Your task to perform on an android device: toggle improve location accuracy Image 0: 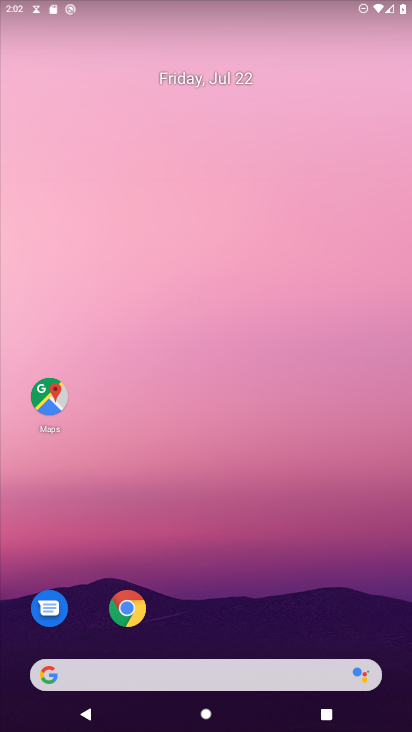
Step 0: drag from (246, 624) to (289, 56)
Your task to perform on an android device: toggle improve location accuracy Image 1: 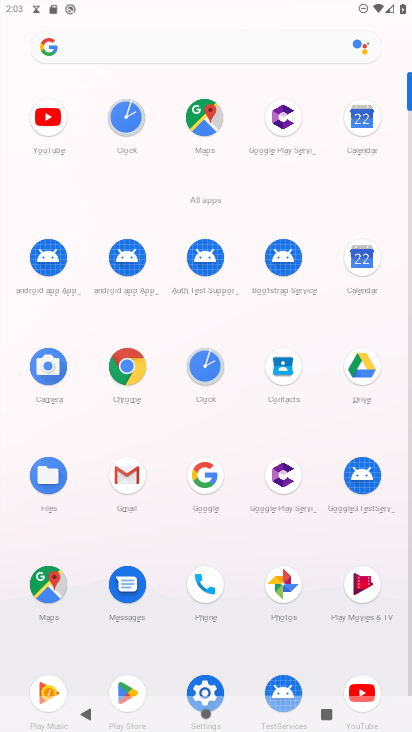
Step 1: click (206, 683)
Your task to perform on an android device: toggle improve location accuracy Image 2: 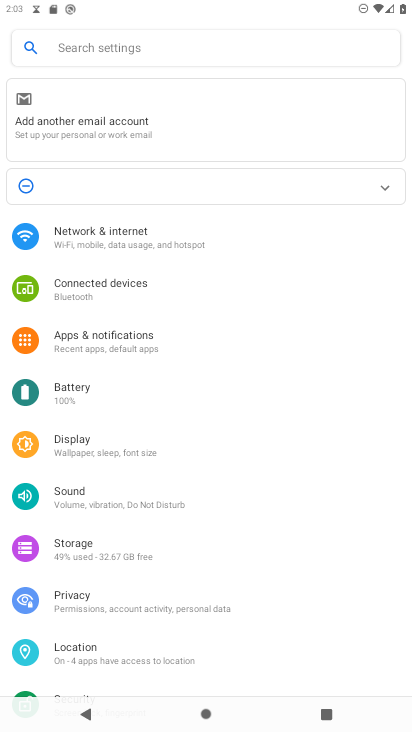
Step 2: click (99, 641)
Your task to perform on an android device: toggle improve location accuracy Image 3: 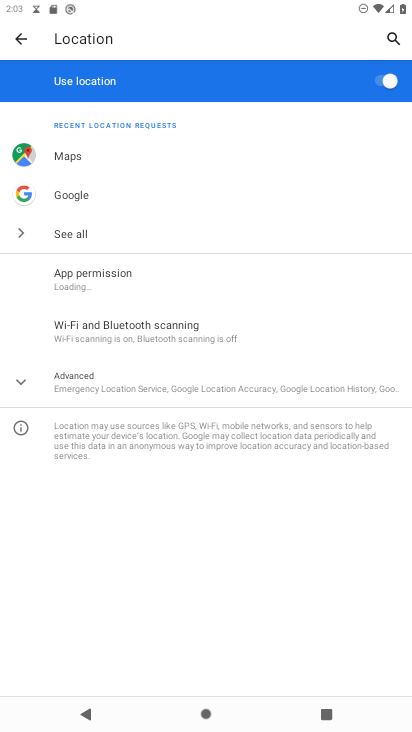
Step 3: click (134, 375)
Your task to perform on an android device: toggle improve location accuracy Image 4: 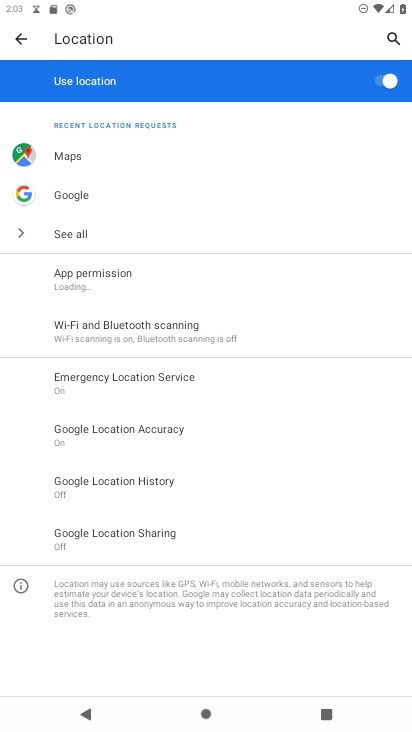
Step 4: click (88, 435)
Your task to perform on an android device: toggle improve location accuracy Image 5: 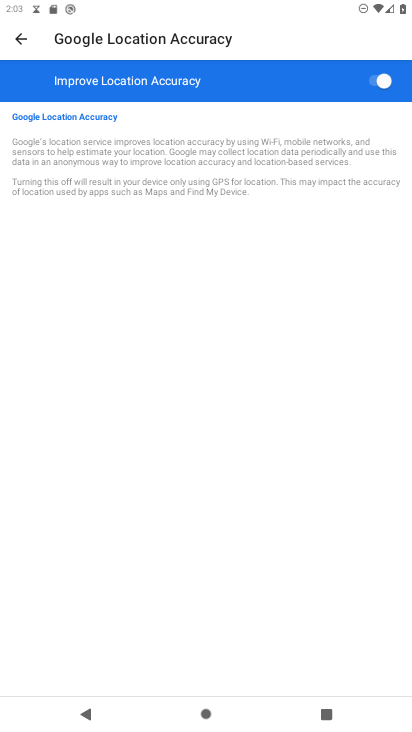
Step 5: click (385, 75)
Your task to perform on an android device: toggle improve location accuracy Image 6: 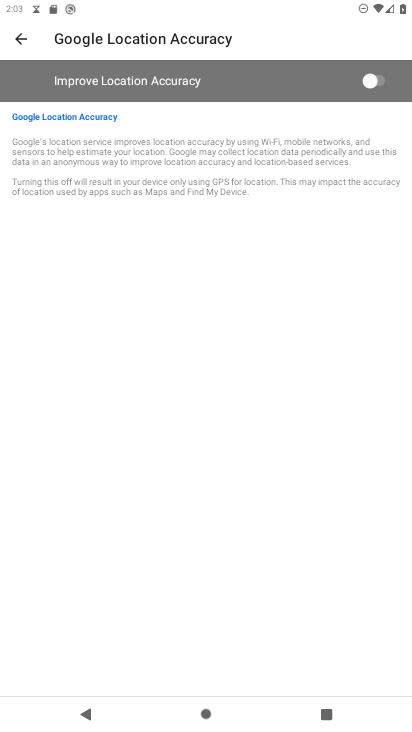
Step 6: task complete